Your task to perform on an android device: show emergency info Image 0: 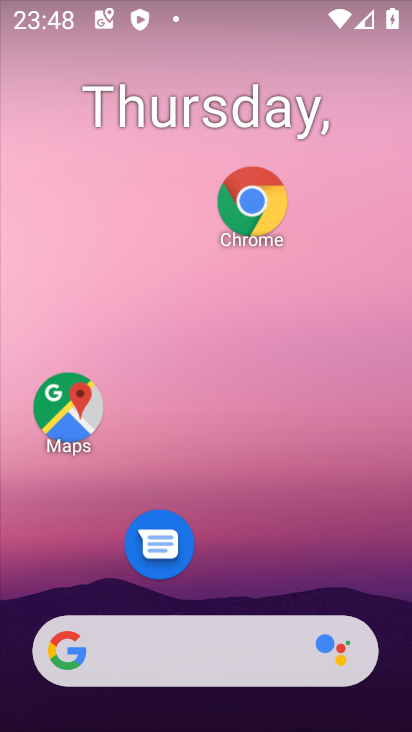
Step 0: drag from (222, 521) to (226, 25)
Your task to perform on an android device: show emergency info Image 1: 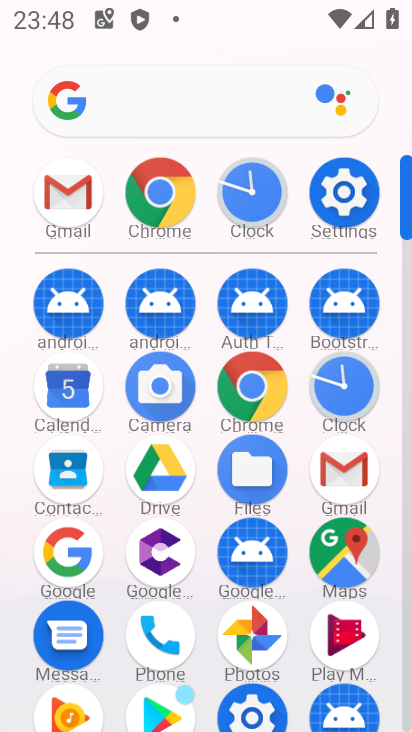
Step 1: click (342, 183)
Your task to perform on an android device: show emergency info Image 2: 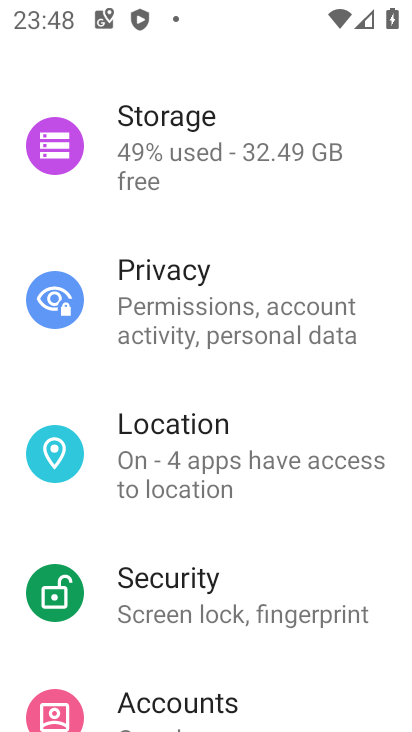
Step 2: drag from (200, 663) to (227, 51)
Your task to perform on an android device: show emergency info Image 3: 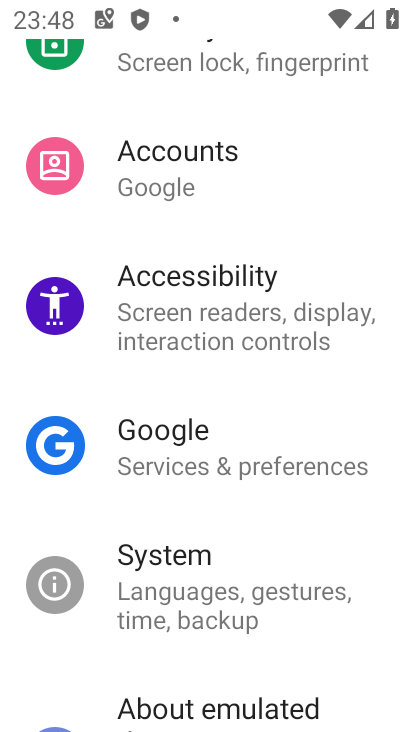
Step 3: drag from (232, 690) to (272, 262)
Your task to perform on an android device: show emergency info Image 4: 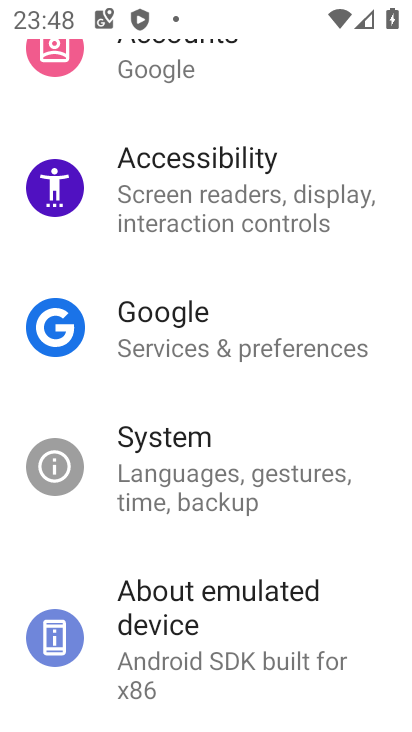
Step 4: click (221, 644)
Your task to perform on an android device: show emergency info Image 5: 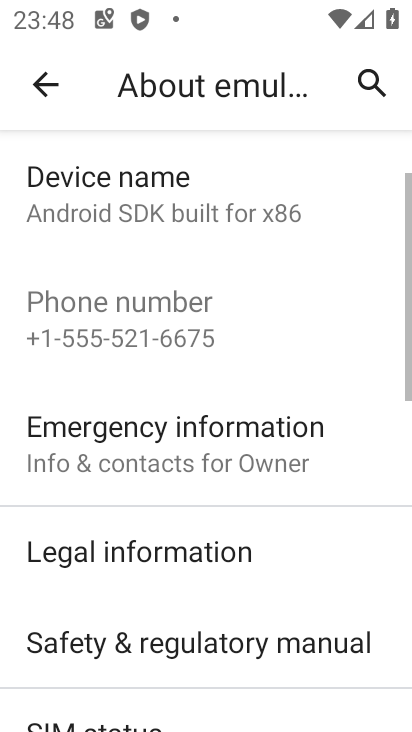
Step 5: click (197, 448)
Your task to perform on an android device: show emergency info Image 6: 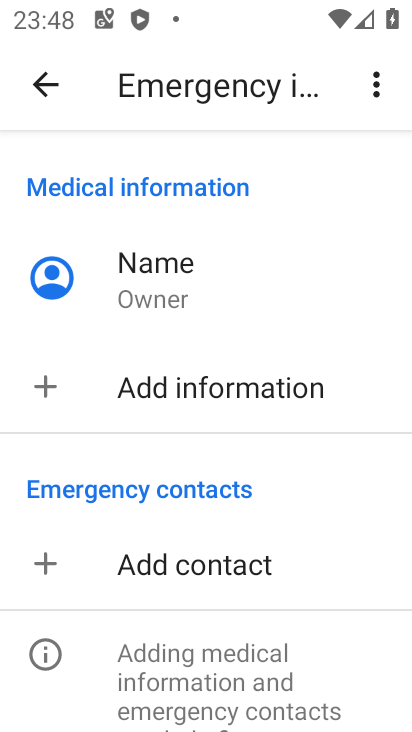
Step 6: task complete